Your task to perform on an android device: Open Youtube and go to "Your channel" Image 0: 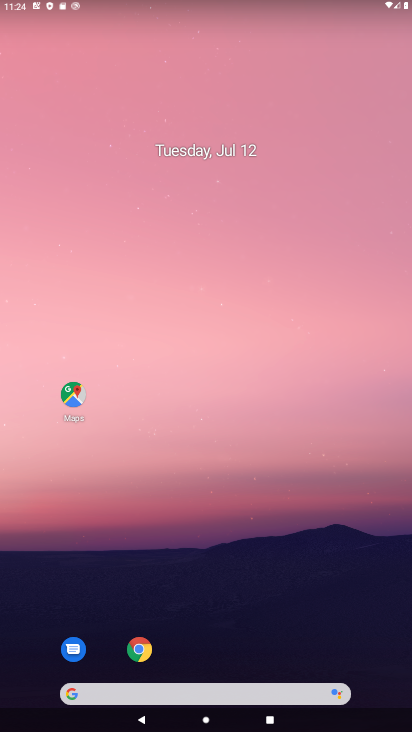
Step 0: drag from (380, 686) to (374, 137)
Your task to perform on an android device: Open Youtube and go to "Your channel" Image 1: 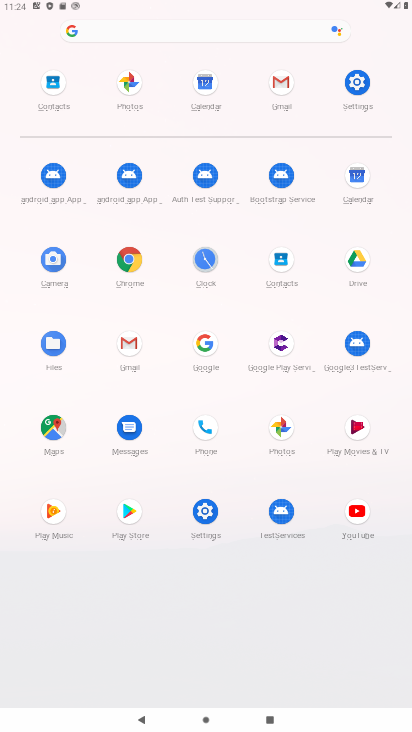
Step 1: click (358, 511)
Your task to perform on an android device: Open Youtube and go to "Your channel" Image 2: 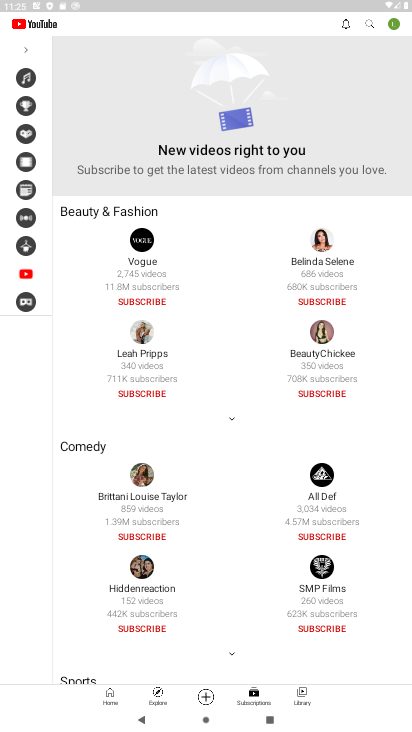
Step 2: click (392, 22)
Your task to perform on an android device: Open Youtube and go to "Your channel" Image 3: 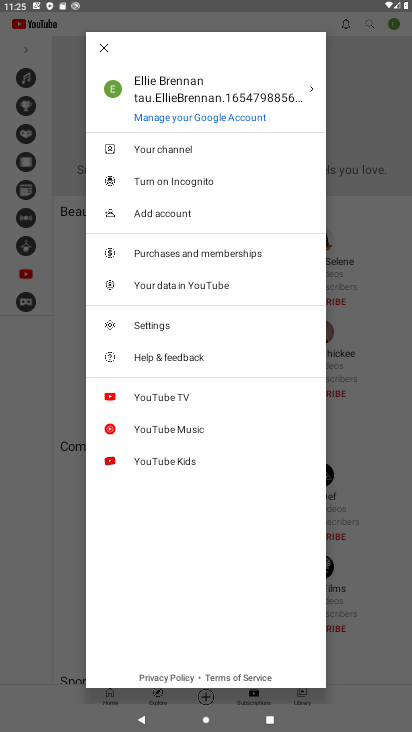
Step 3: click (150, 150)
Your task to perform on an android device: Open Youtube and go to "Your channel" Image 4: 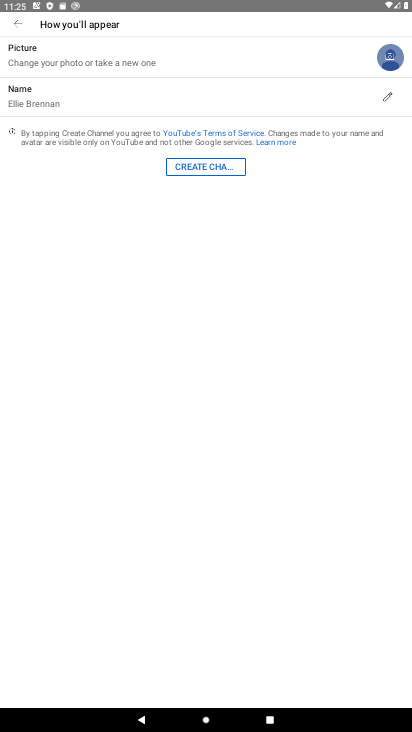
Step 4: task complete